Your task to perform on an android device: turn off data saver in the chrome app Image 0: 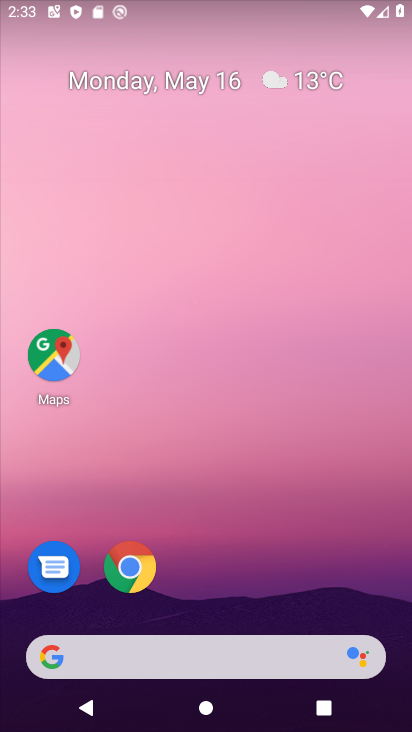
Step 0: click (133, 565)
Your task to perform on an android device: turn off data saver in the chrome app Image 1: 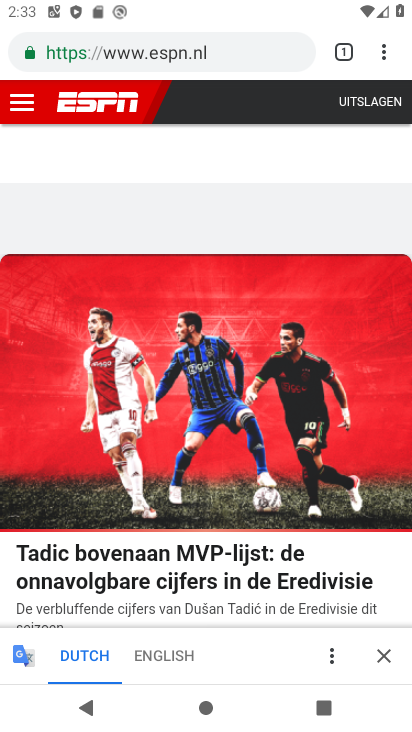
Step 1: drag from (396, 47) to (213, 581)
Your task to perform on an android device: turn off data saver in the chrome app Image 2: 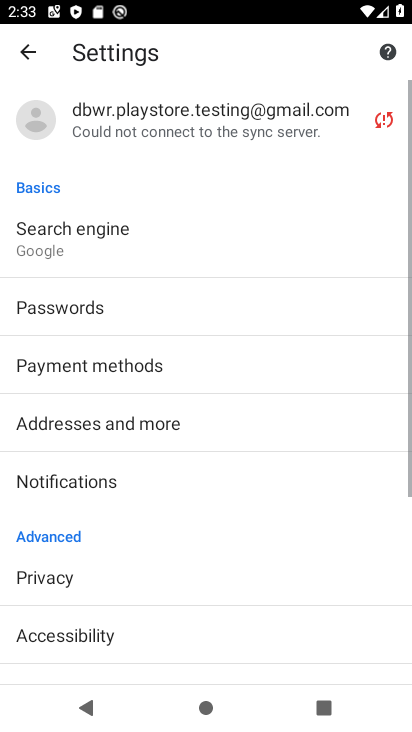
Step 2: drag from (212, 538) to (377, 101)
Your task to perform on an android device: turn off data saver in the chrome app Image 3: 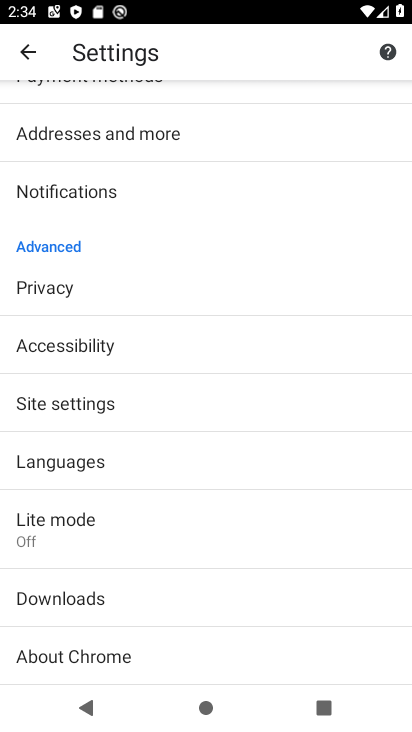
Step 3: click (156, 509)
Your task to perform on an android device: turn off data saver in the chrome app Image 4: 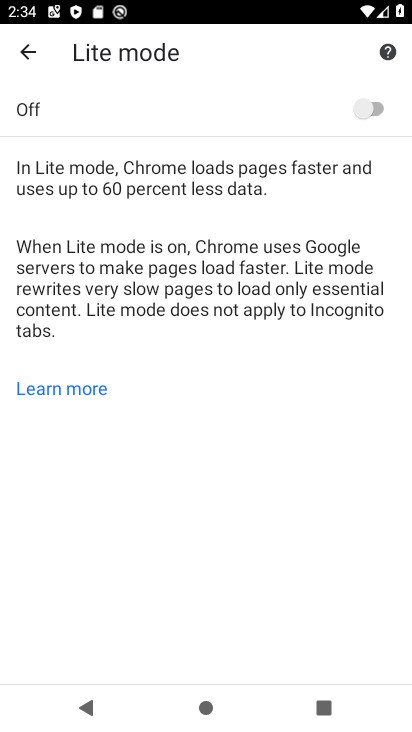
Step 4: task complete